Your task to perform on an android device: turn smart compose on in the gmail app Image 0: 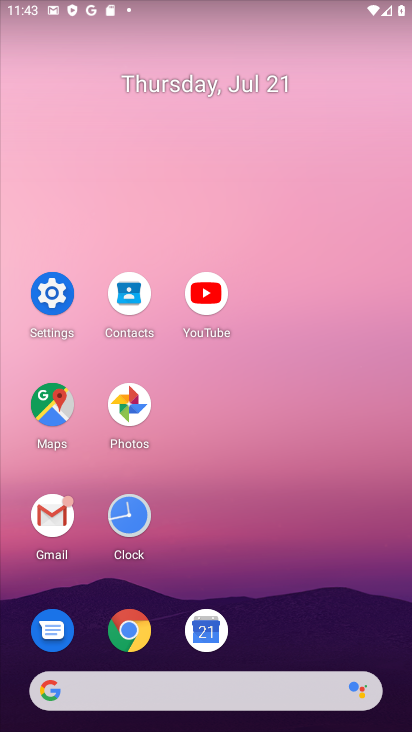
Step 0: click (51, 510)
Your task to perform on an android device: turn smart compose on in the gmail app Image 1: 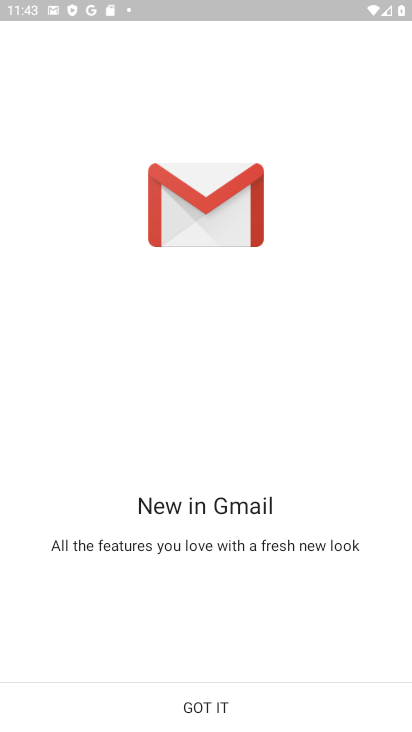
Step 1: click (207, 700)
Your task to perform on an android device: turn smart compose on in the gmail app Image 2: 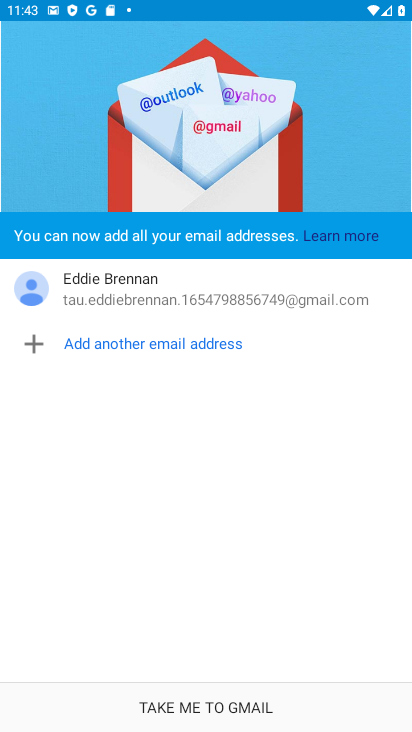
Step 2: click (207, 700)
Your task to perform on an android device: turn smart compose on in the gmail app Image 3: 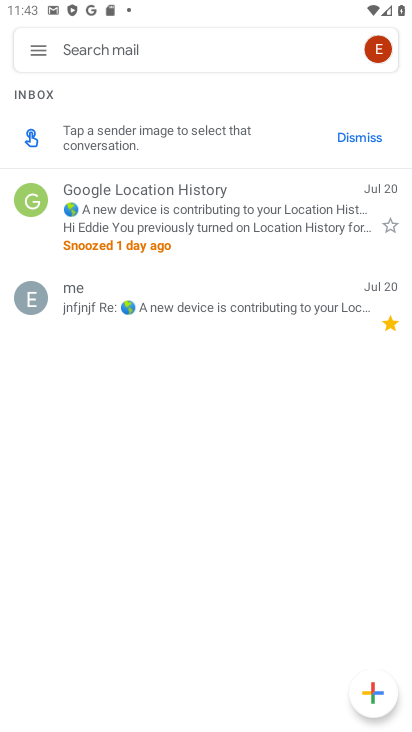
Step 3: click (35, 48)
Your task to perform on an android device: turn smart compose on in the gmail app Image 4: 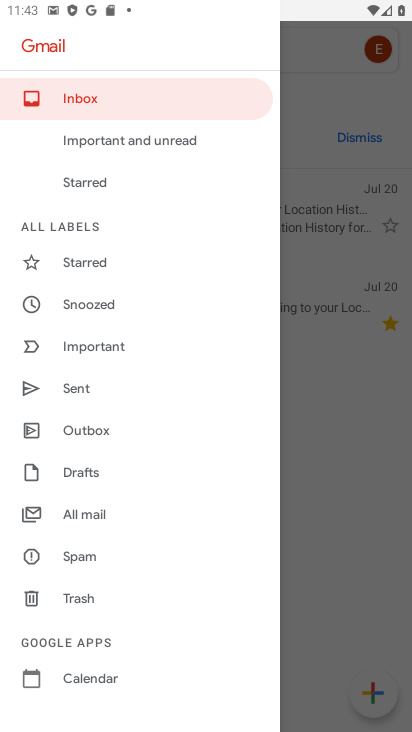
Step 4: drag from (123, 637) to (147, 393)
Your task to perform on an android device: turn smart compose on in the gmail app Image 5: 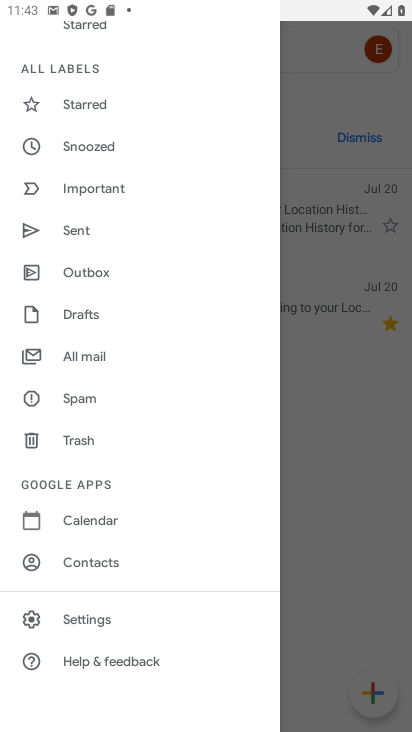
Step 5: click (73, 617)
Your task to perform on an android device: turn smart compose on in the gmail app Image 6: 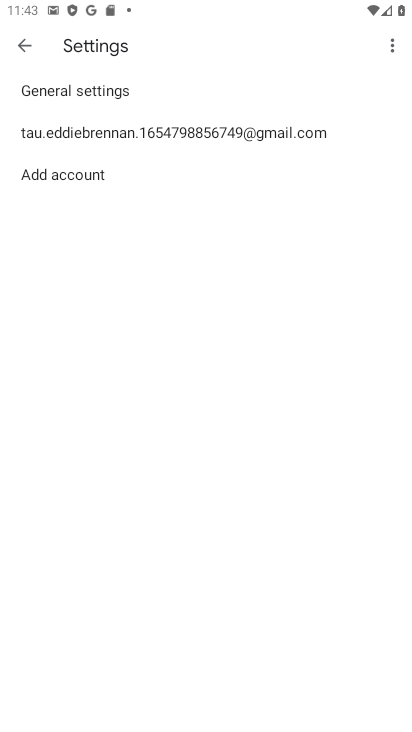
Step 6: click (70, 130)
Your task to perform on an android device: turn smart compose on in the gmail app Image 7: 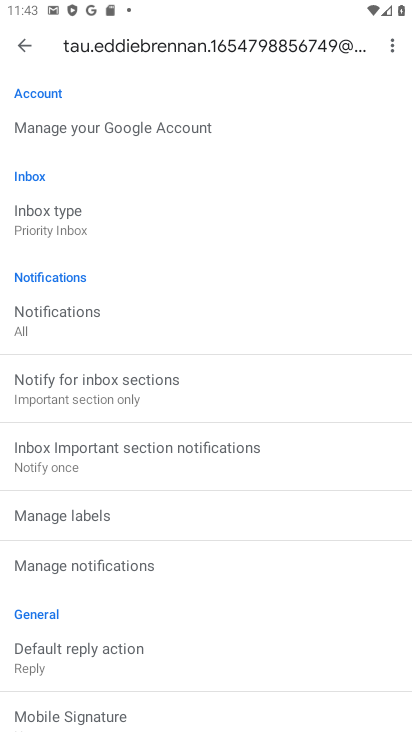
Step 7: task complete